Your task to perform on an android device: toggle translation in the chrome app Image 0: 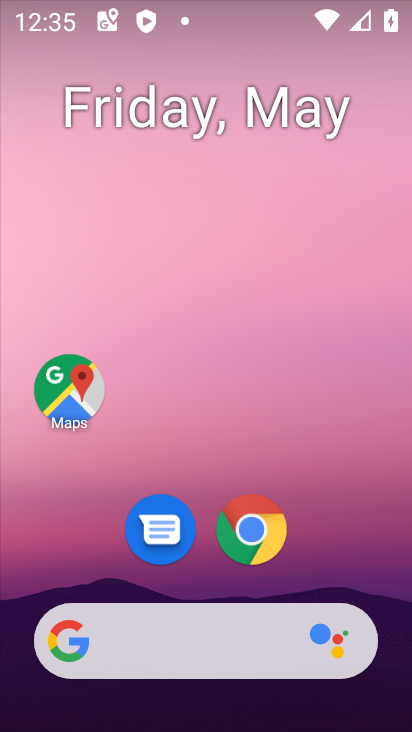
Step 0: click (268, 528)
Your task to perform on an android device: toggle translation in the chrome app Image 1: 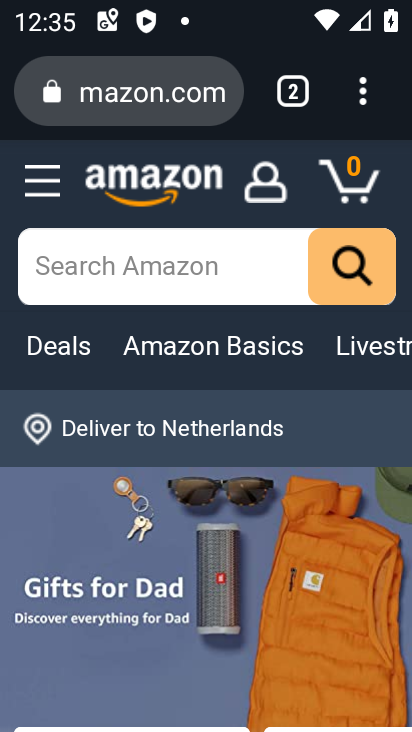
Step 1: click (367, 107)
Your task to perform on an android device: toggle translation in the chrome app Image 2: 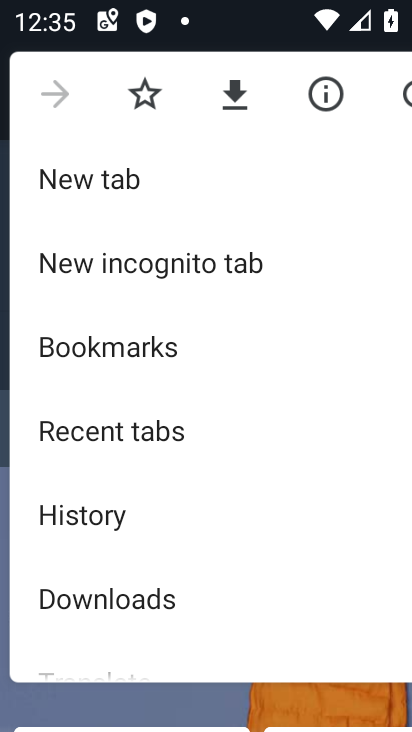
Step 2: drag from (205, 614) to (203, 315)
Your task to perform on an android device: toggle translation in the chrome app Image 3: 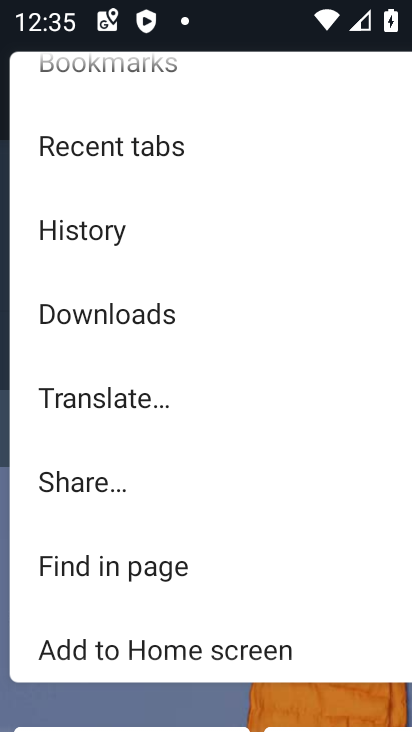
Step 3: drag from (133, 622) to (140, 329)
Your task to perform on an android device: toggle translation in the chrome app Image 4: 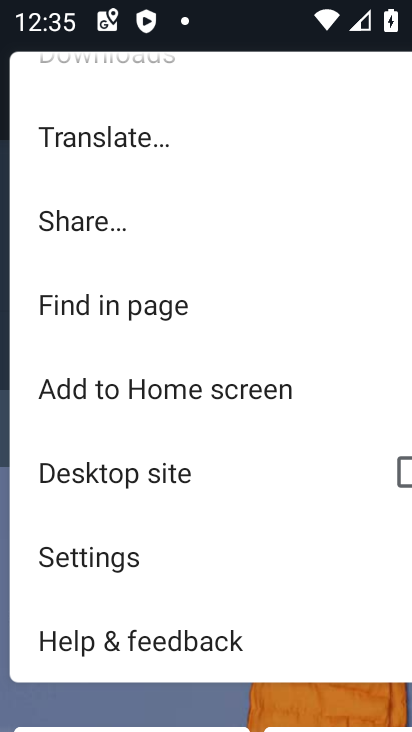
Step 4: click (161, 550)
Your task to perform on an android device: toggle translation in the chrome app Image 5: 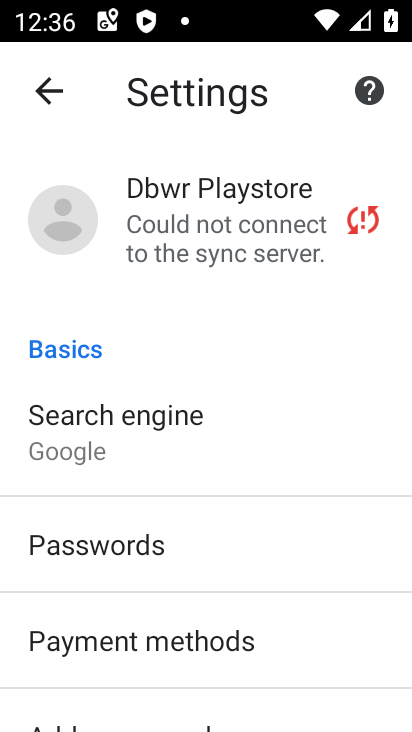
Step 5: drag from (198, 600) to (216, 249)
Your task to perform on an android device: toggle translation in the chrome app Image 6: 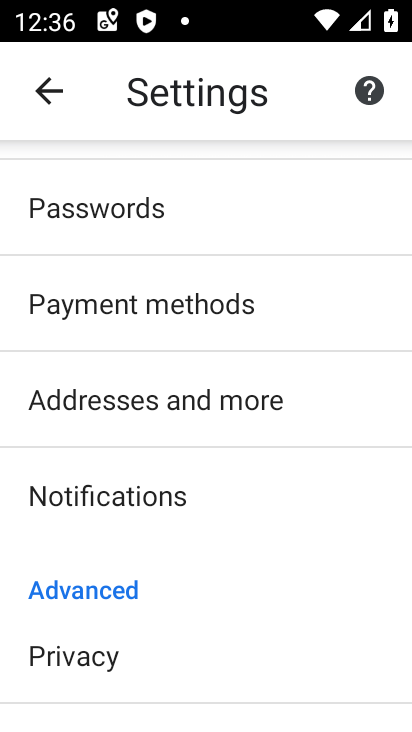
Step 6: drag from (150, 624) to (167, 412)
Your task to perform on an android device: toggle translation in the chrome app Image 7: 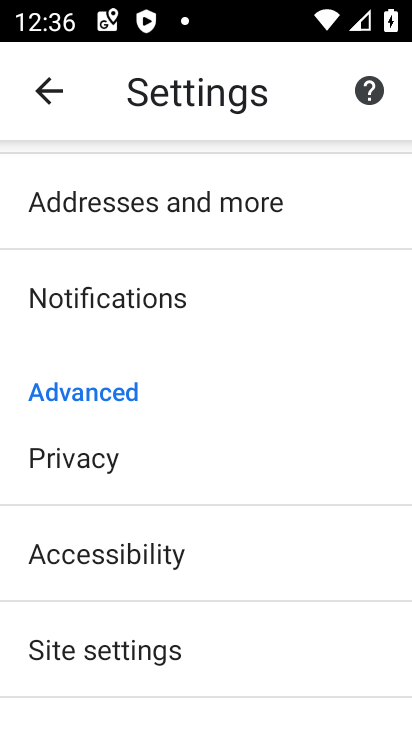
Step 7: click (162, 630)
Your task to perform on an android device: toggle translation in the chrome app Image 8: 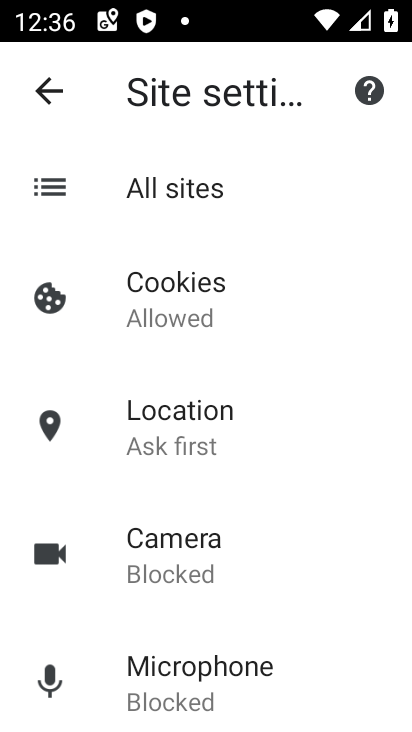
Step 8: task complete